Your task to perform on an android device: uninstall "McDonald's" Image 0: 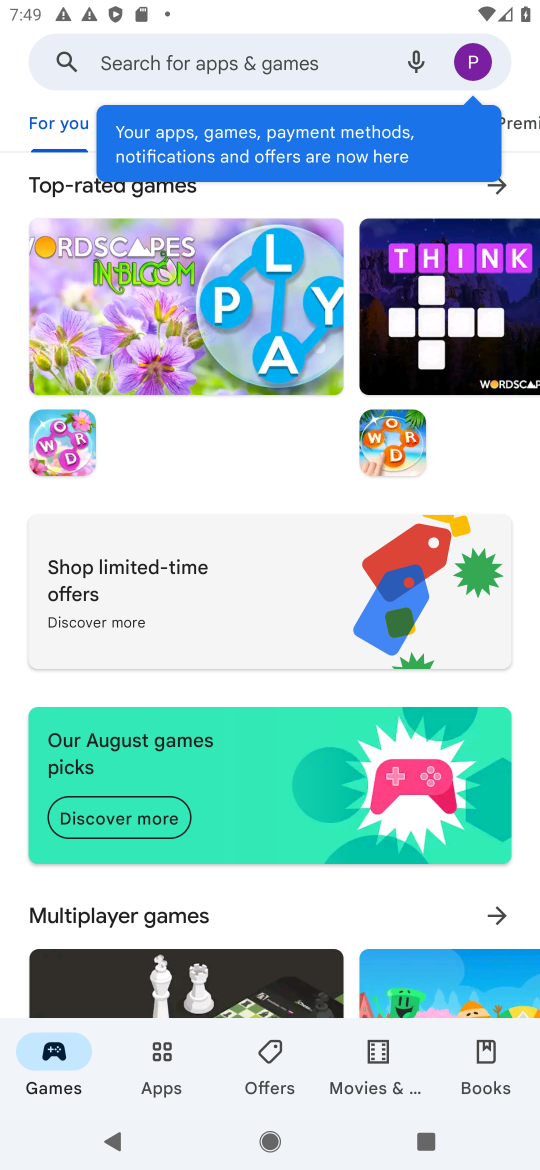
Step 0: press home button
Your task to perform on an android device: uninstall "McDonald's" Image 1: 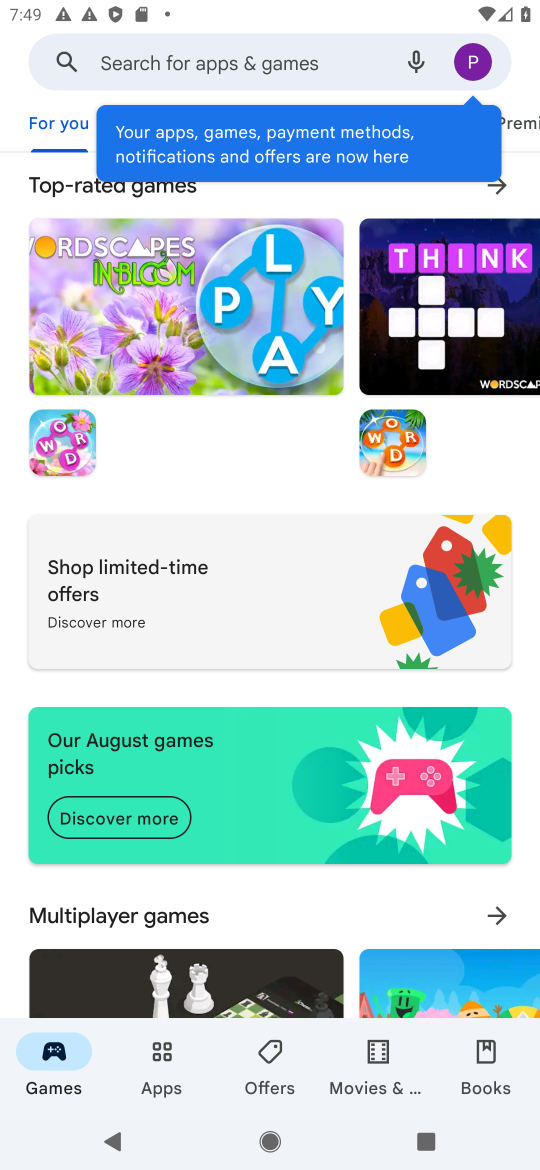
Step 1: press home button
Your task to perform on an android device: uninstall "McDonald's" Image 2: 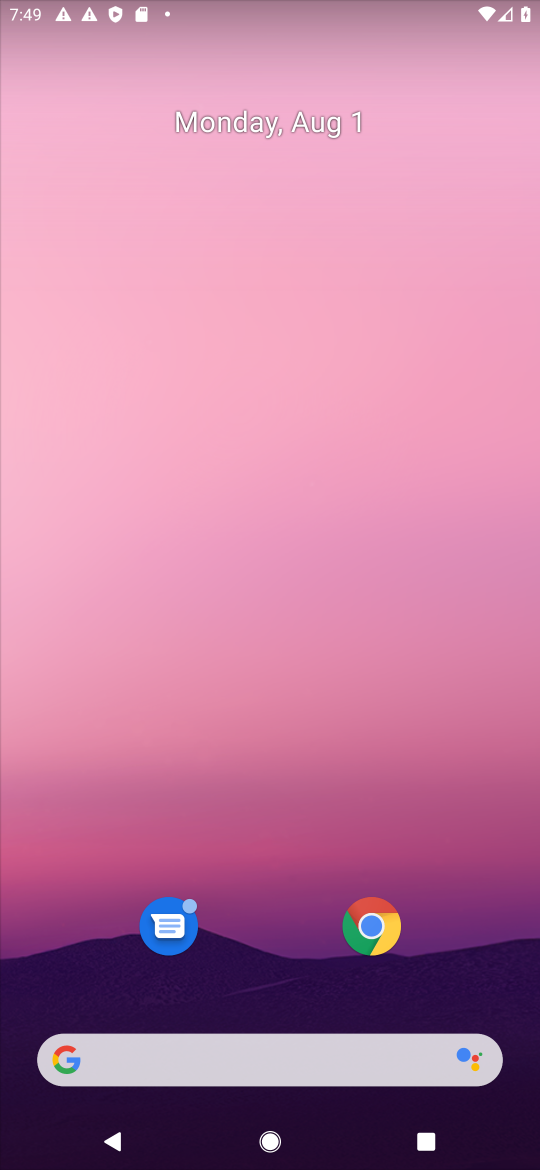
Step 2: drag from (271, 957) to (333, 74)
Your task to perform on an android device: uninstall "McDonald's" Image 3: 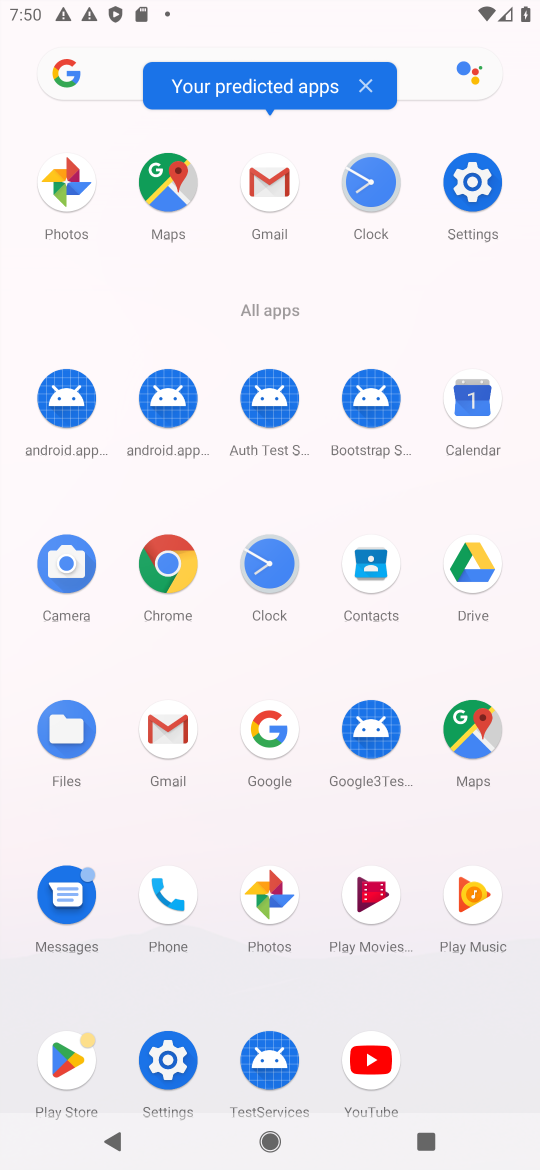
Step 3: click (66, 1053)
Your task to perform on an android device: uninstall "McDonald's" Image 4: 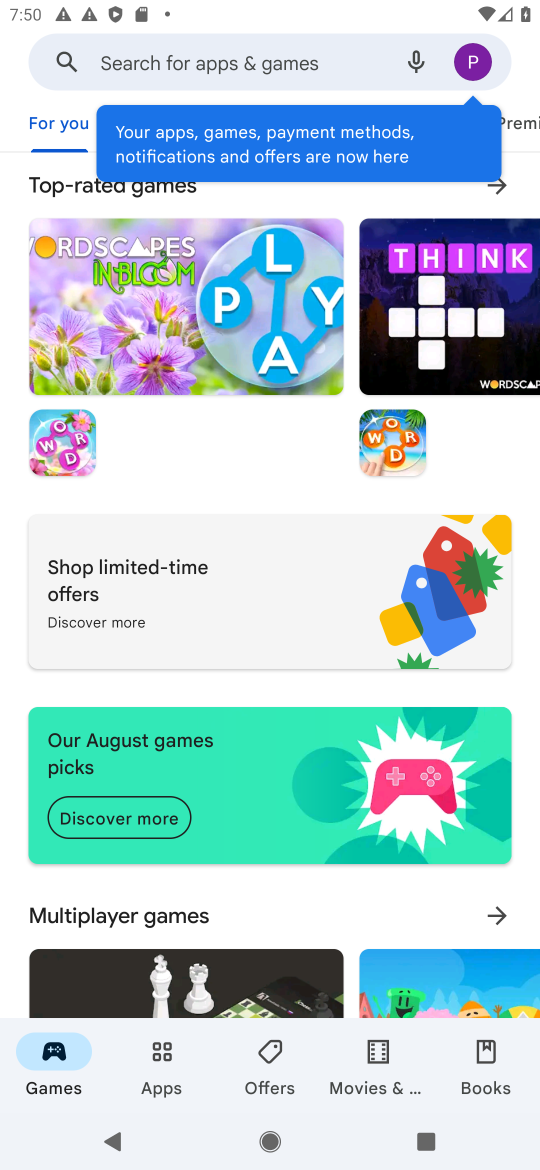
Step 4: click (170, 58)
Your task to perform on an android device: uninstall "McDonald's" Image 5: 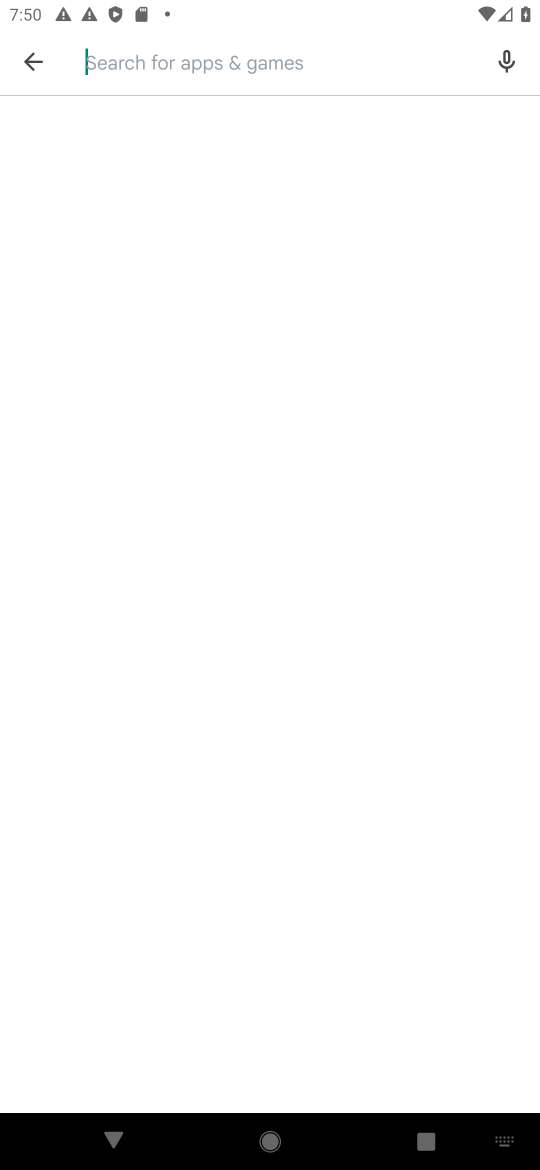
Step 5: type "McDonald's"
Your task to perform on an android device: uninstall "McDonald's" Image 6: 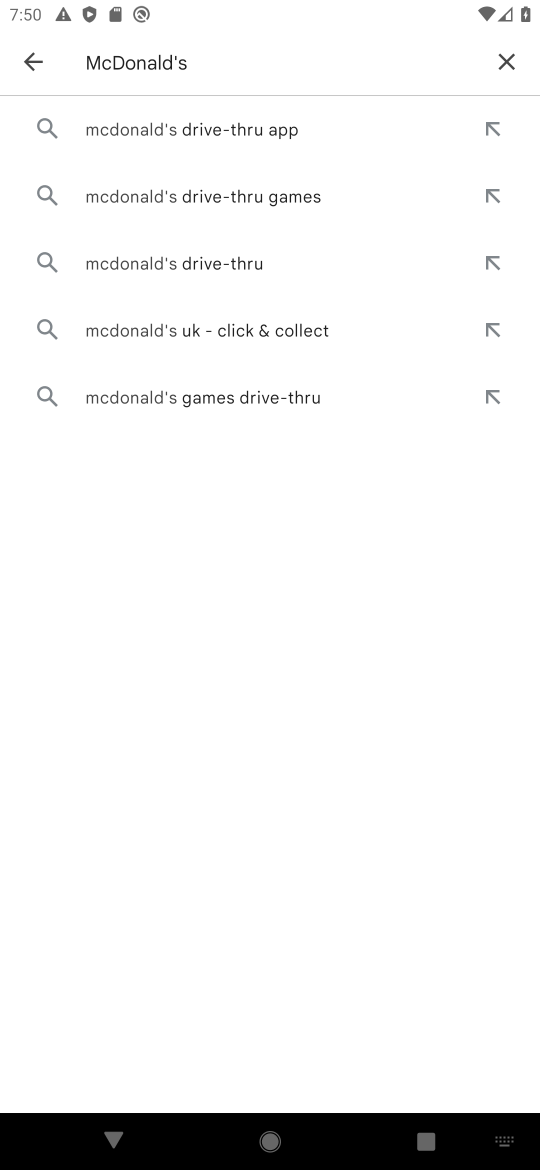
Step 6: click (151, 137)
Your task to perform on an android device: uninstall "McDonald's" Image 7: 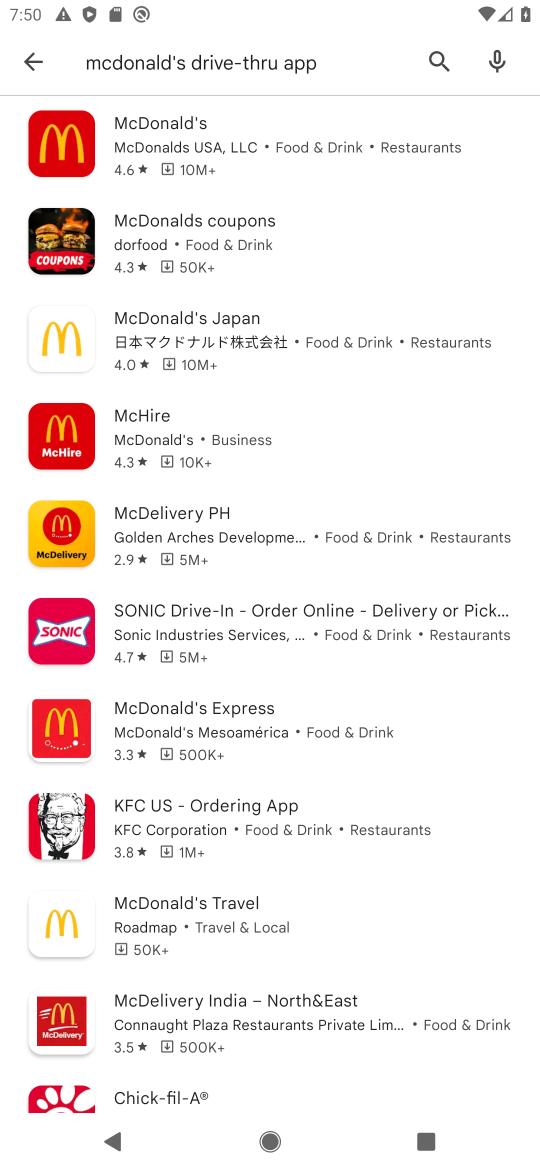
Step 7: click (150, 139)
Your task to perform on an android device: uninstall "McDonald's" Image 8: 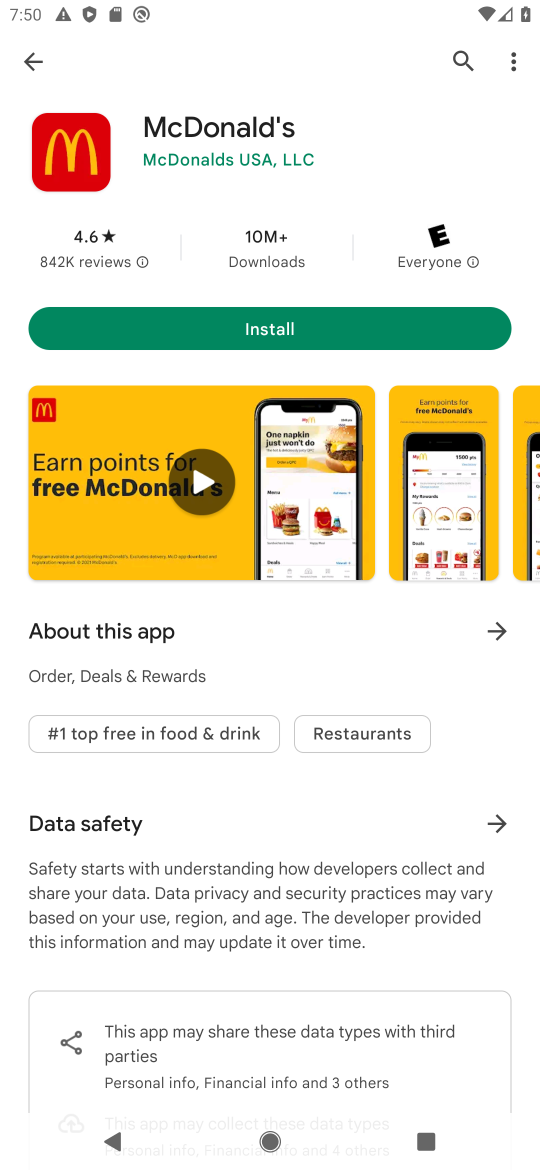
Step 8: task complete